Your task to perform on an android device: Check the weather Image 0: 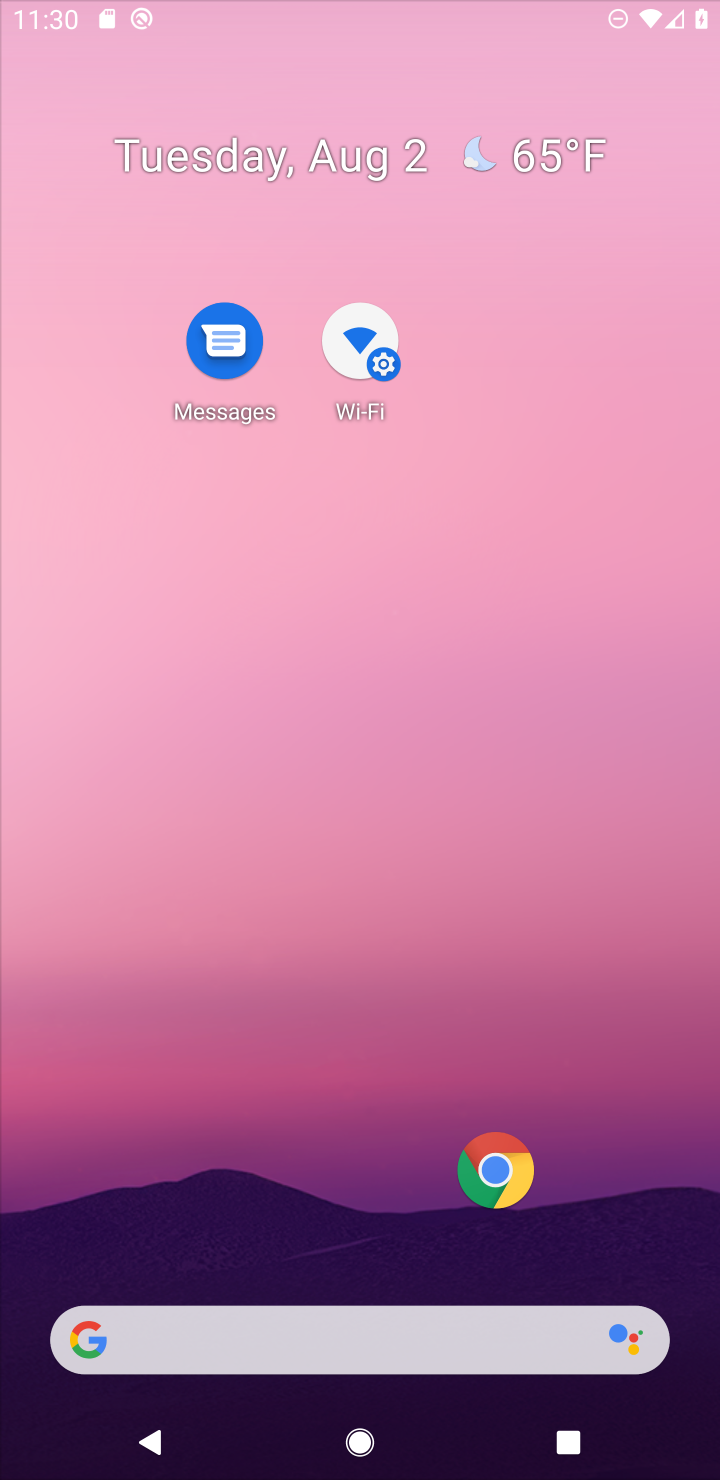
Step 0: drag from (514, 1009) to (542, 895)
Your task to perform on an android device: Check the weather Image 1: 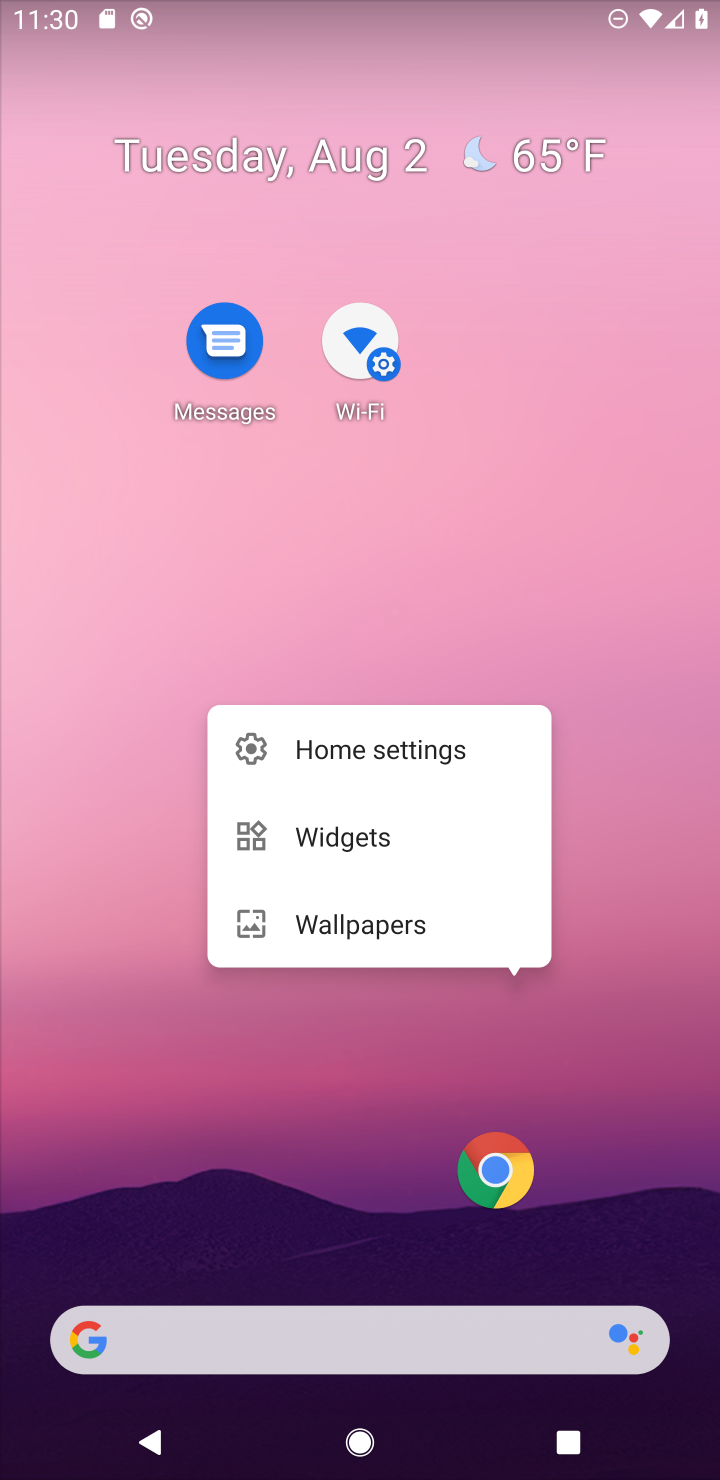
Step 1: drag from (357, 1010) to (364, 595)
Your task to perform on an android device: Check the weather Image 2: 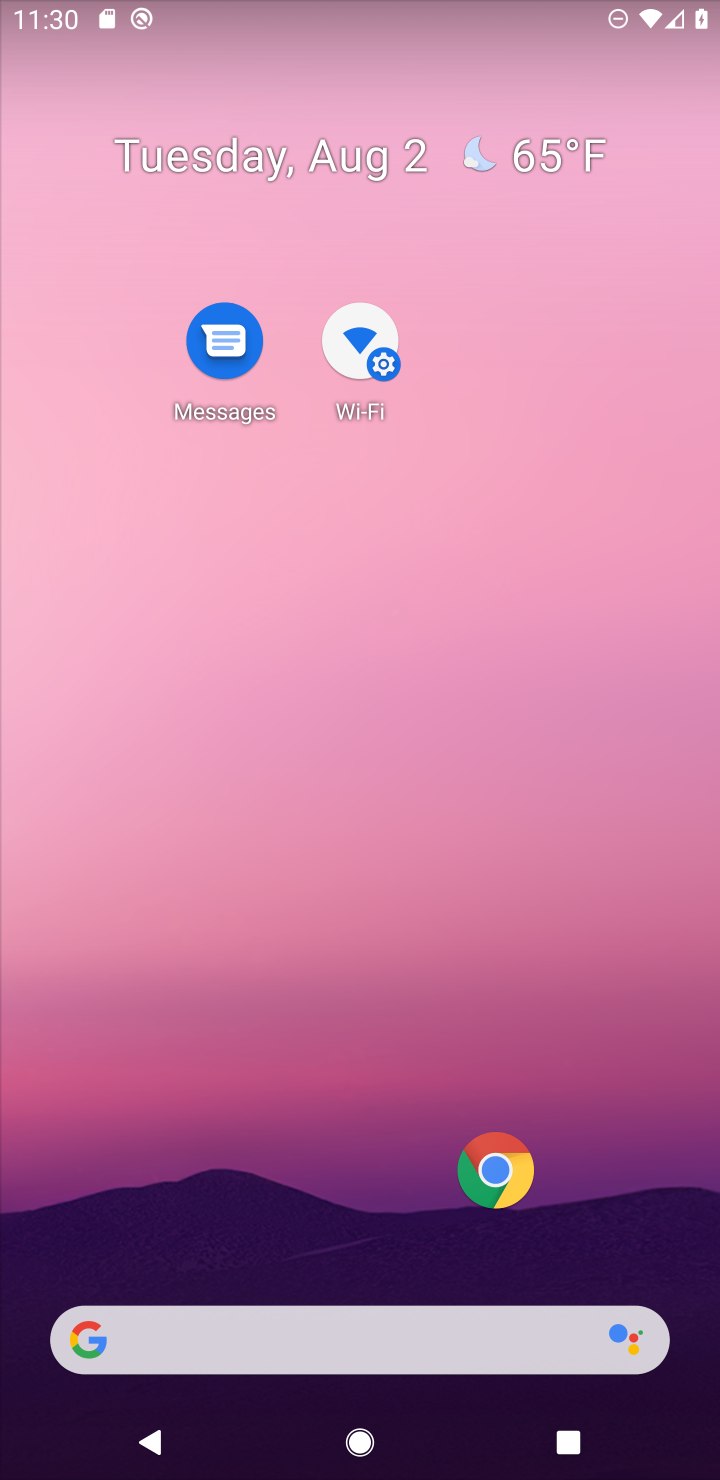
Step 2: drag from (313, 1039) to (273, 310)
Your task to perform on an android device: Check the weather Image 3: 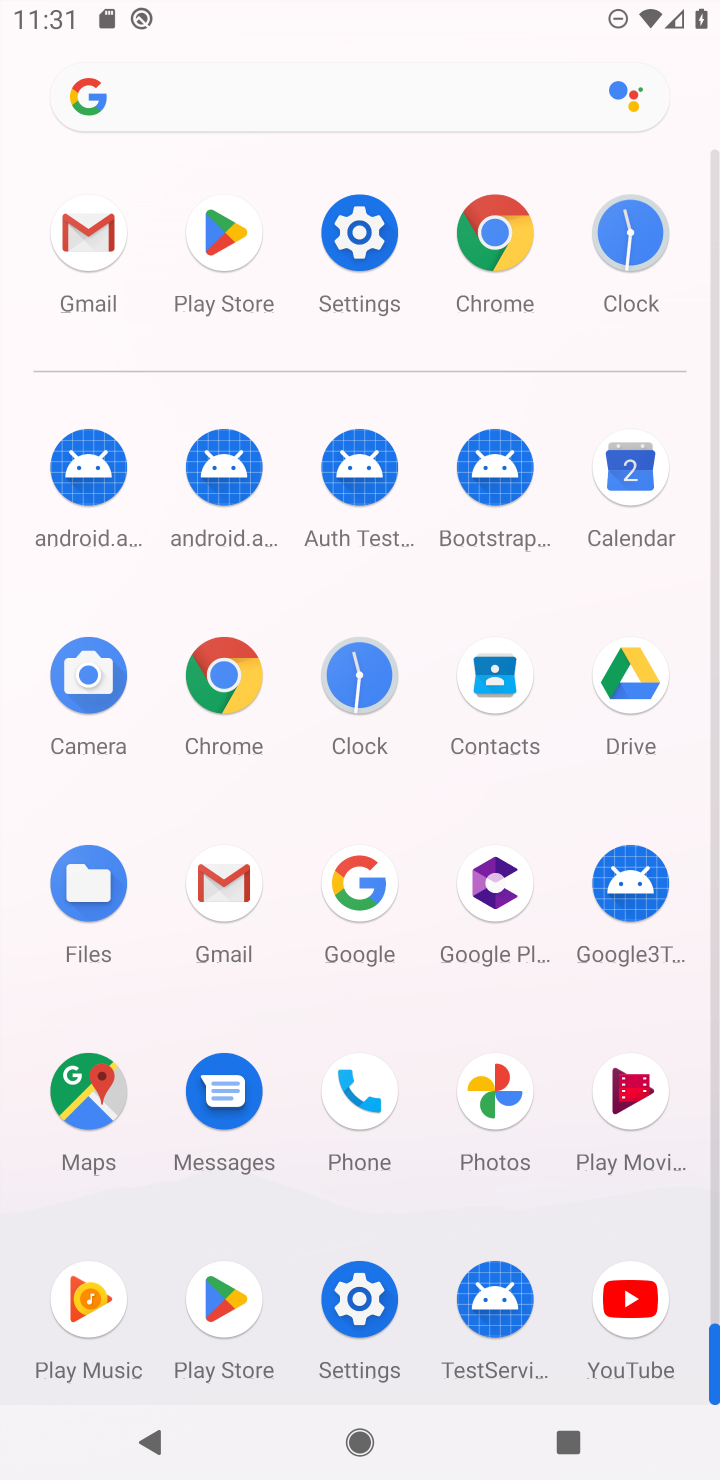
Step 3: drag from (442, 1021) to (435, 173)
Your task to perform on an android device: Check the weather Image 4: 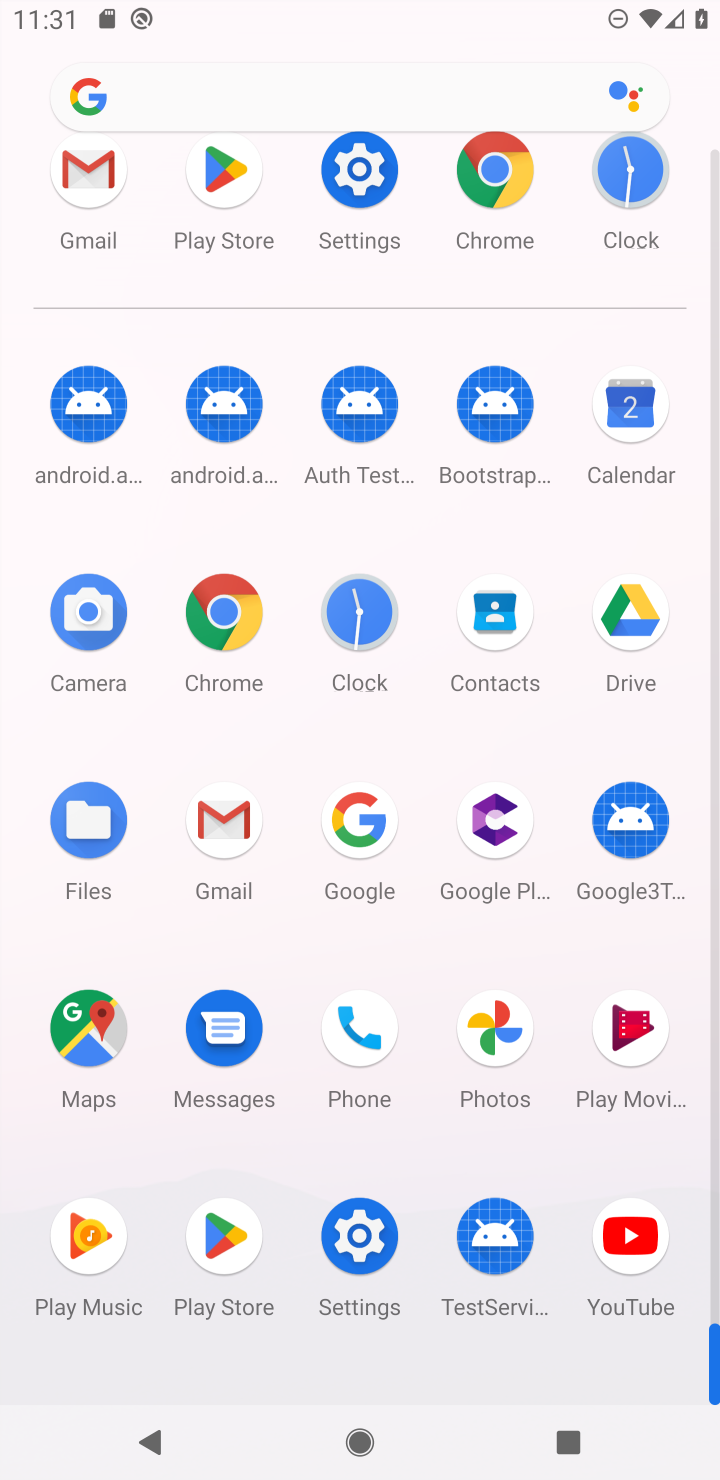
Step 4: drag from (411, 233) to (455, 1298)
Your task to perform on an android device: Check the weather Image 5: 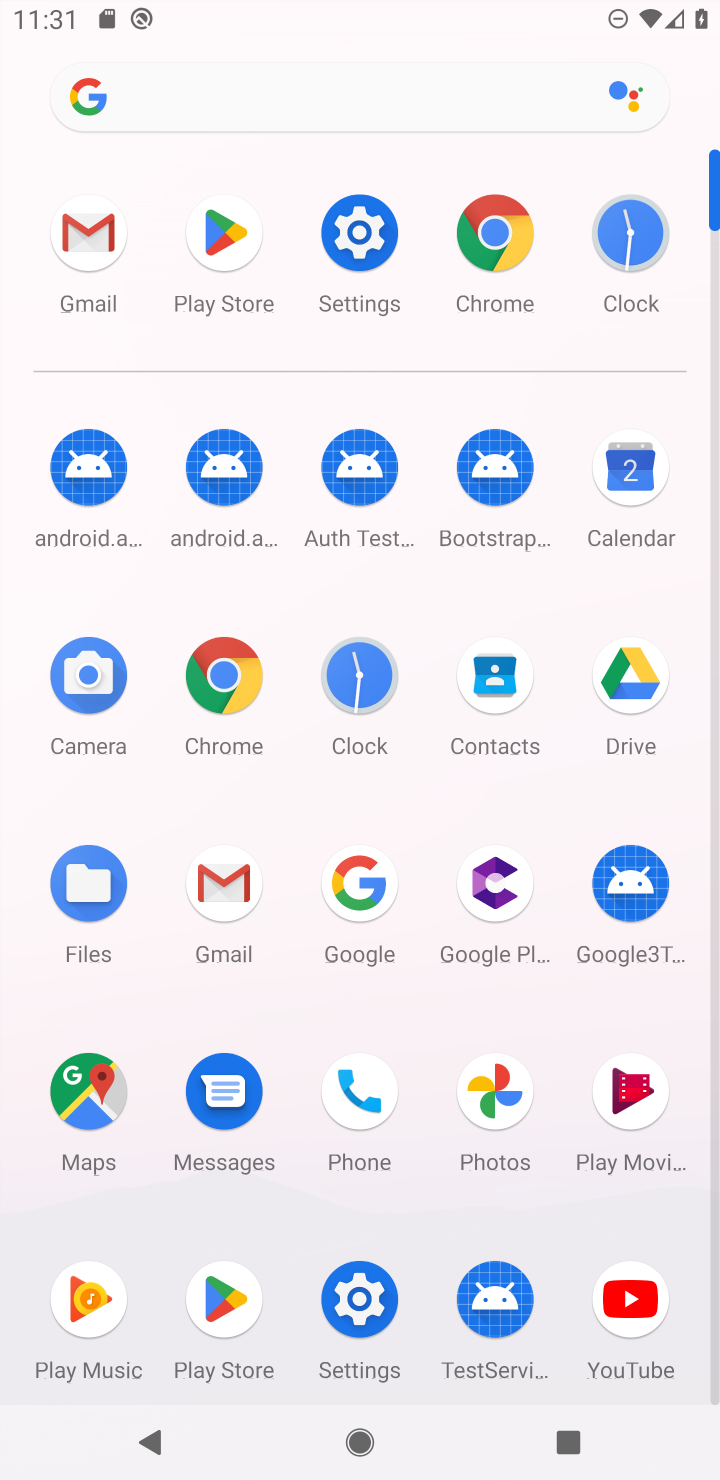
Step 5: click (208, 105)
Your task to perform on an android device: Check the weather Image 6: 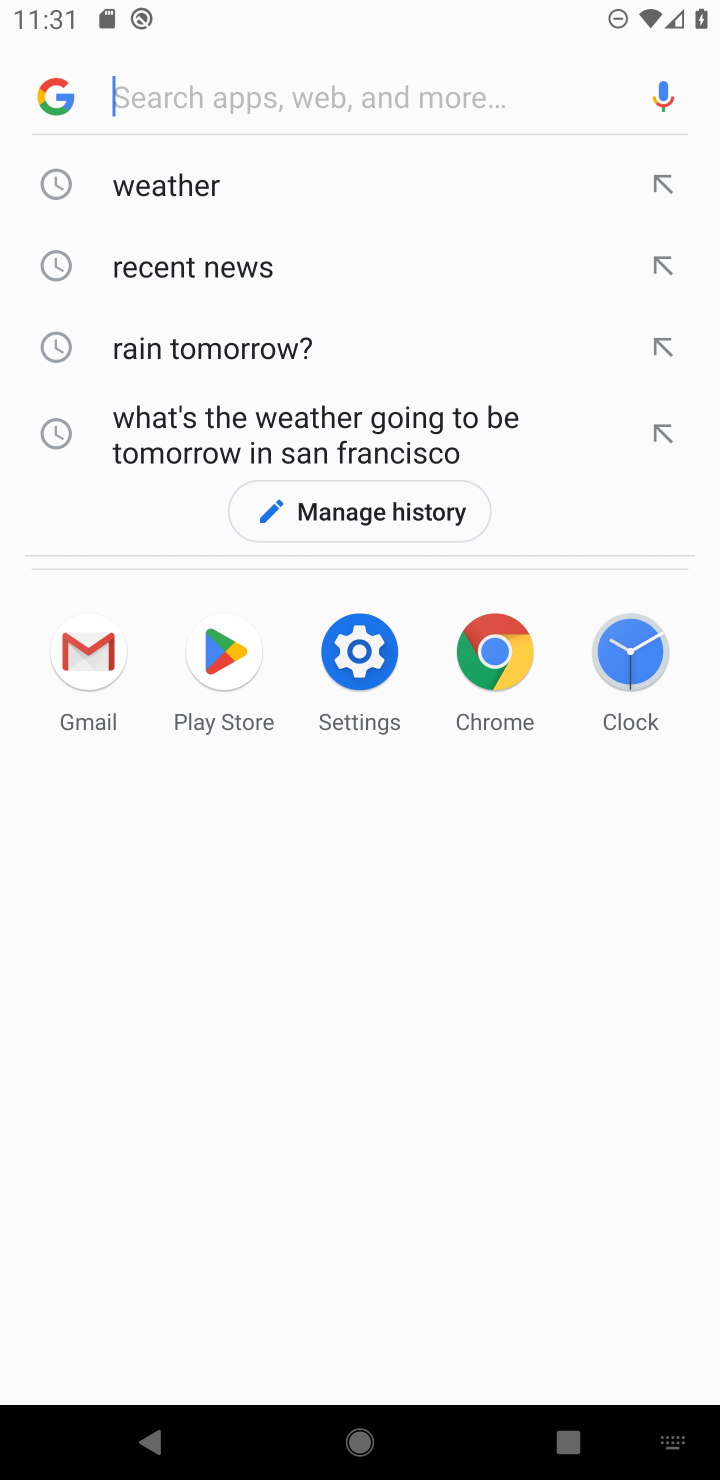
Step 6: click (148, 188)
Your task to perform on an android device: Check the weather Image 7: 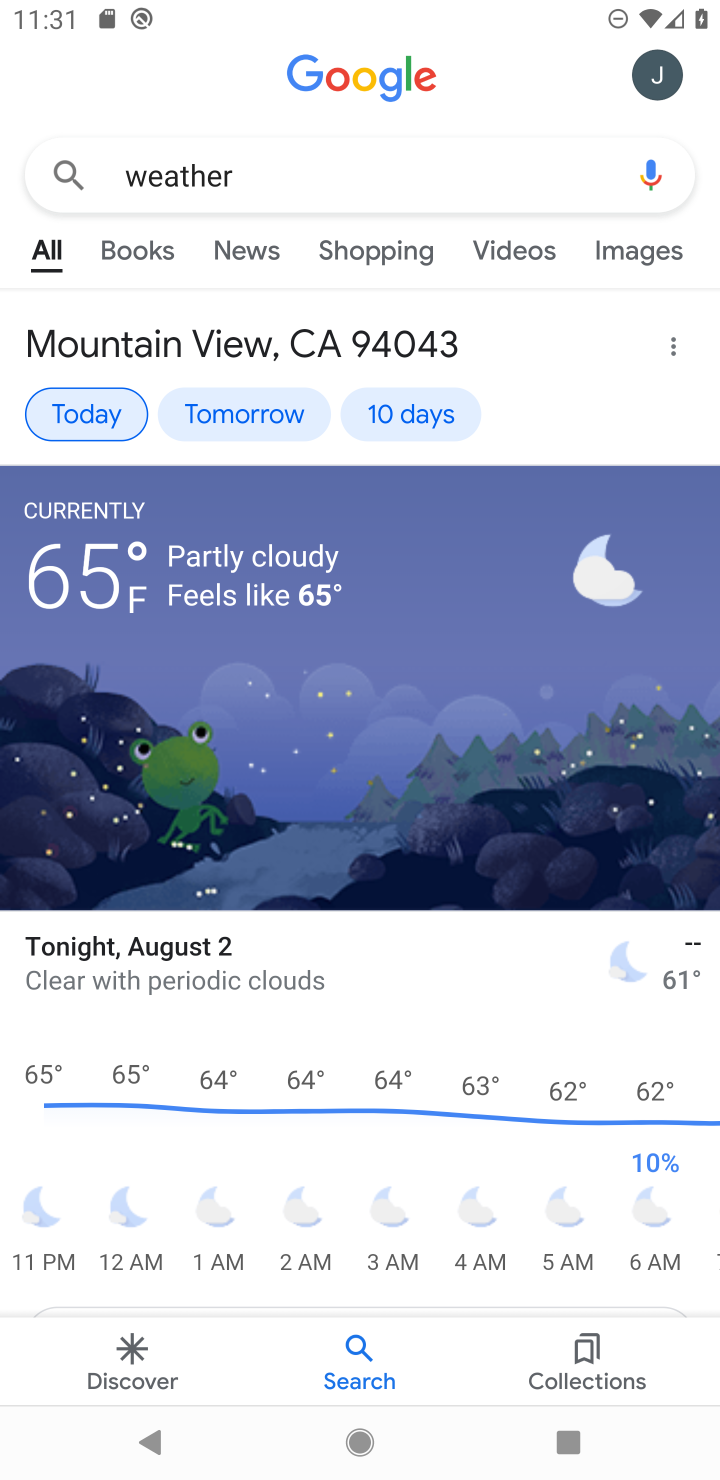
Step 7: task complete